Your task to perform on an android device: open app "Instagram" (install if not already installed) Image 0: 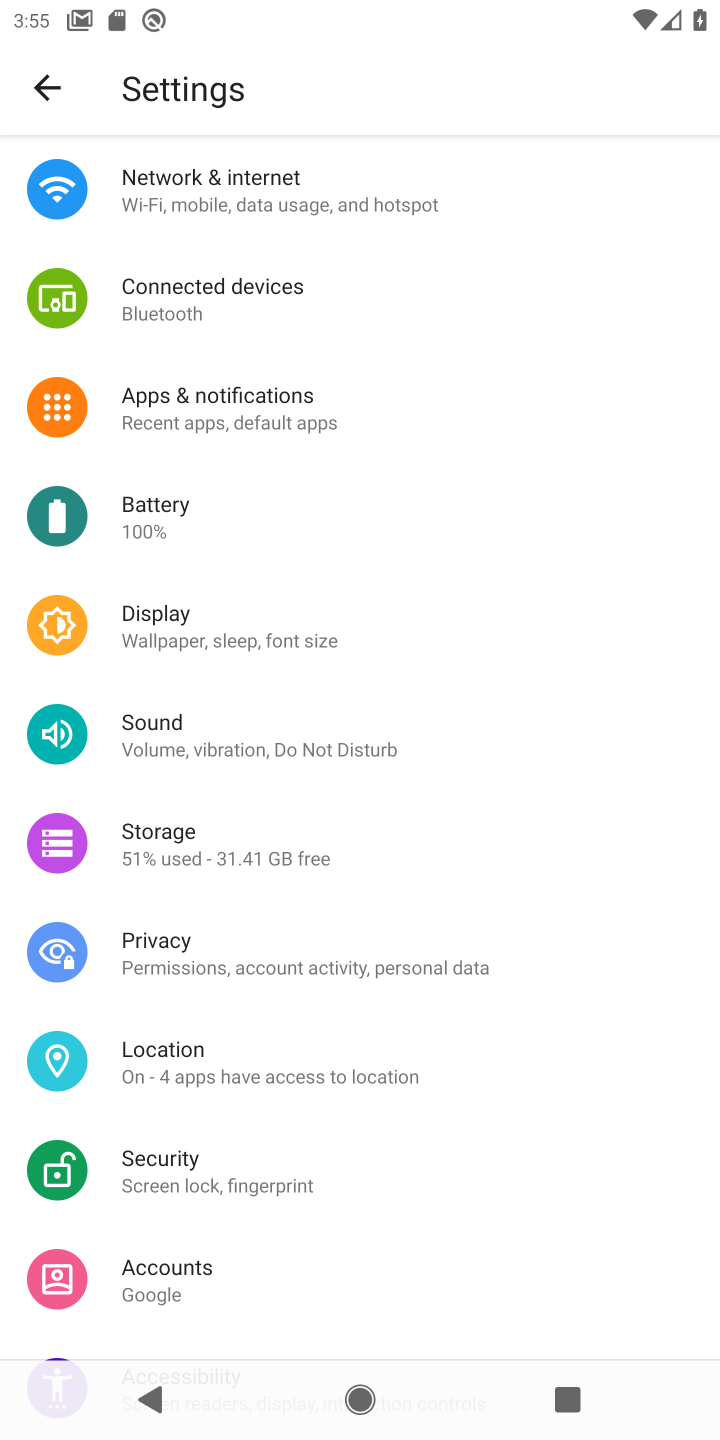
Step 0: press home button
Your task to perform on an android device: open app "Instagram" (install if not already installed) Image 1: 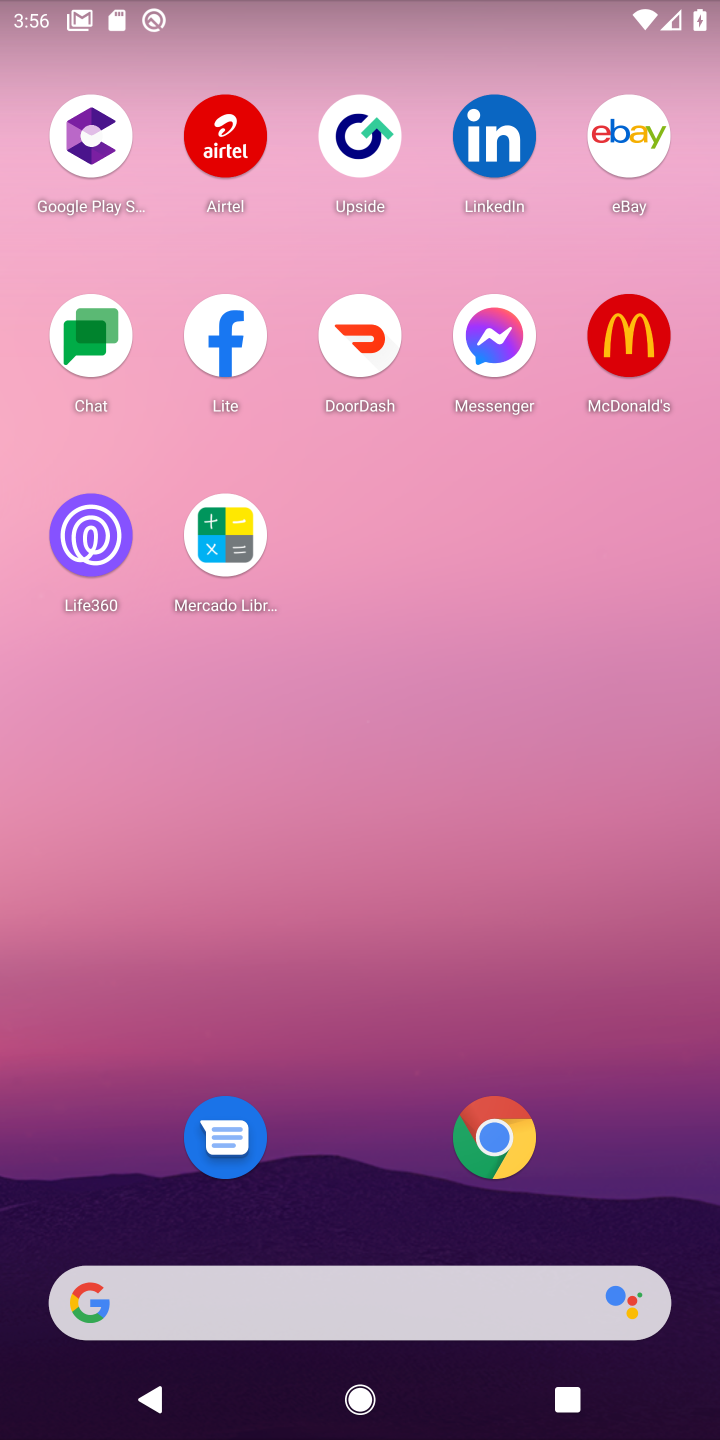
Step 1: drag from (345, 1043) to (221, 273)
Your task to perform on an android device: open app "Instagram" (install if not already installed) Image 2: 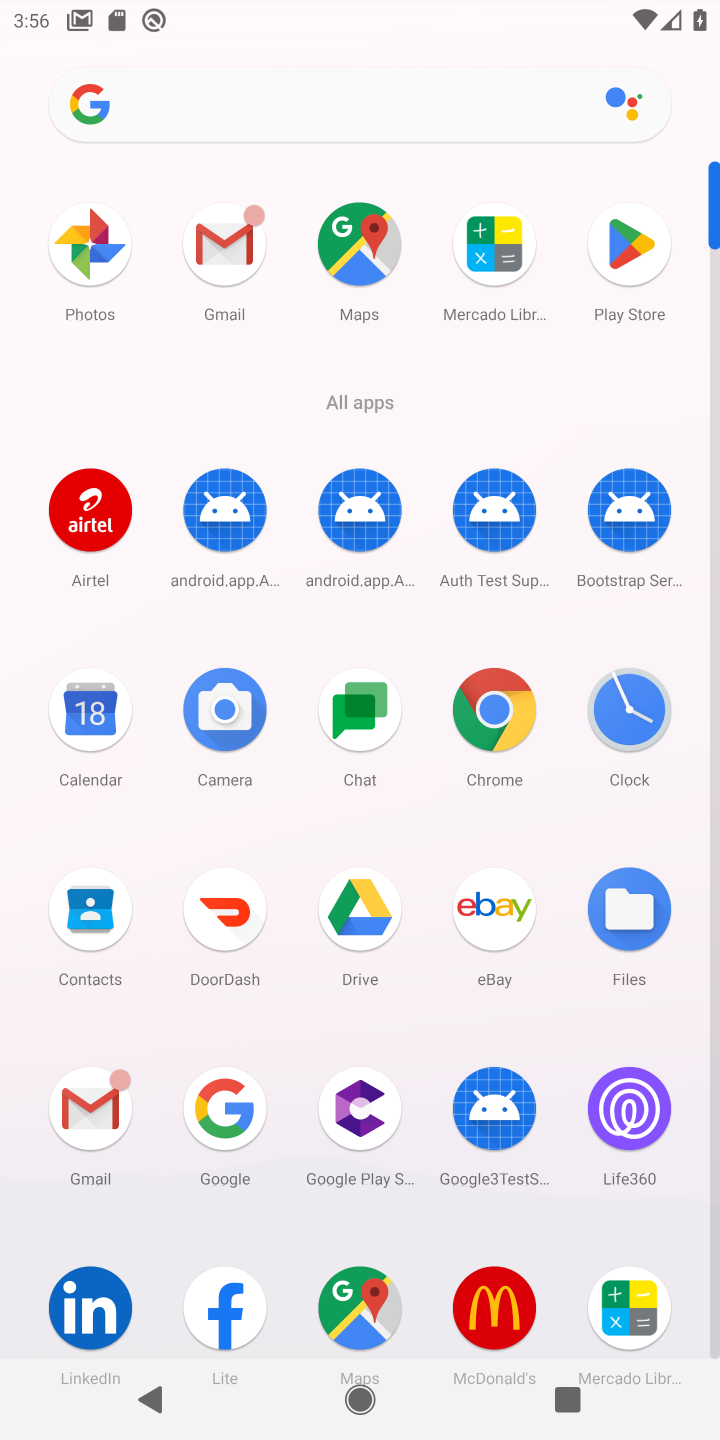
Step 2: click (623, 250)
Your task to perform on an android device: open app "Instagram" (install if not already installed) Image 3: 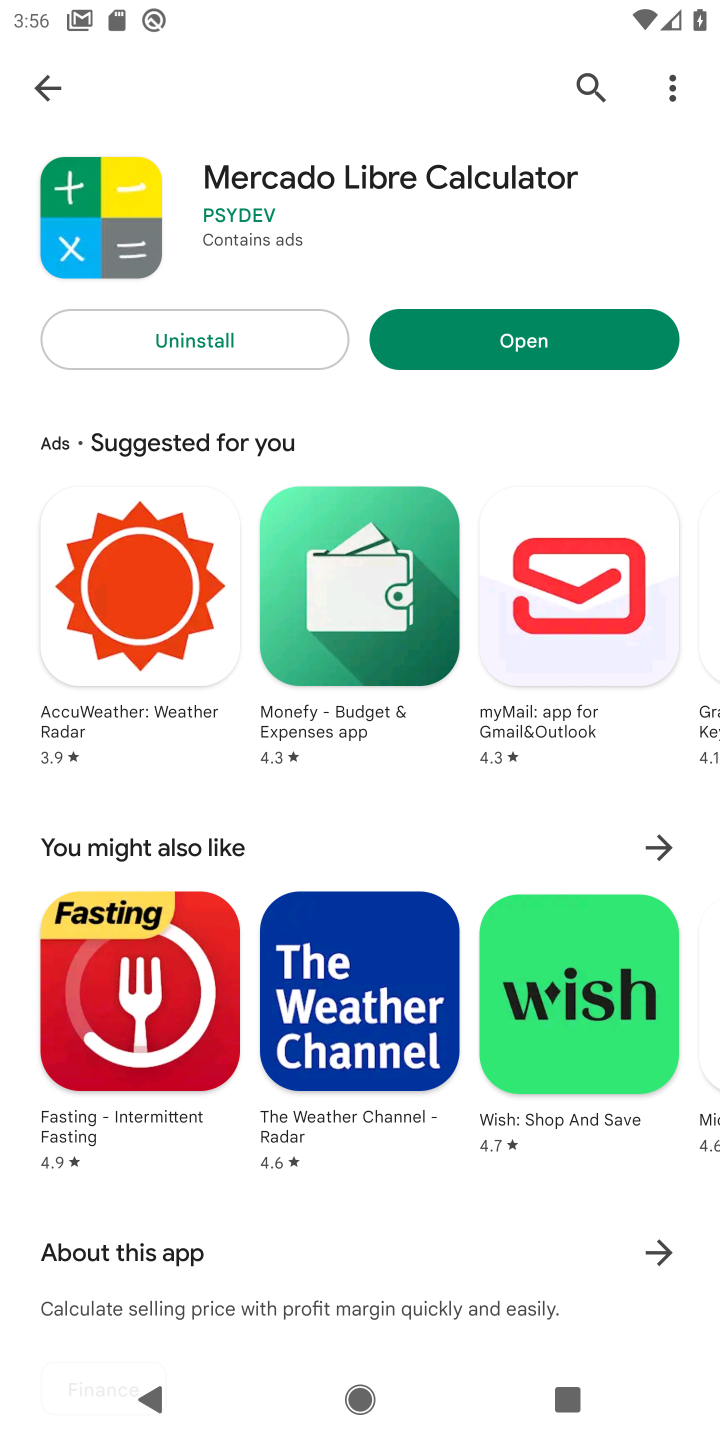
Step 3: click (34, 88)
Your task to perform on an android device: open app "Instagram" (install if not already installed) Image 4: 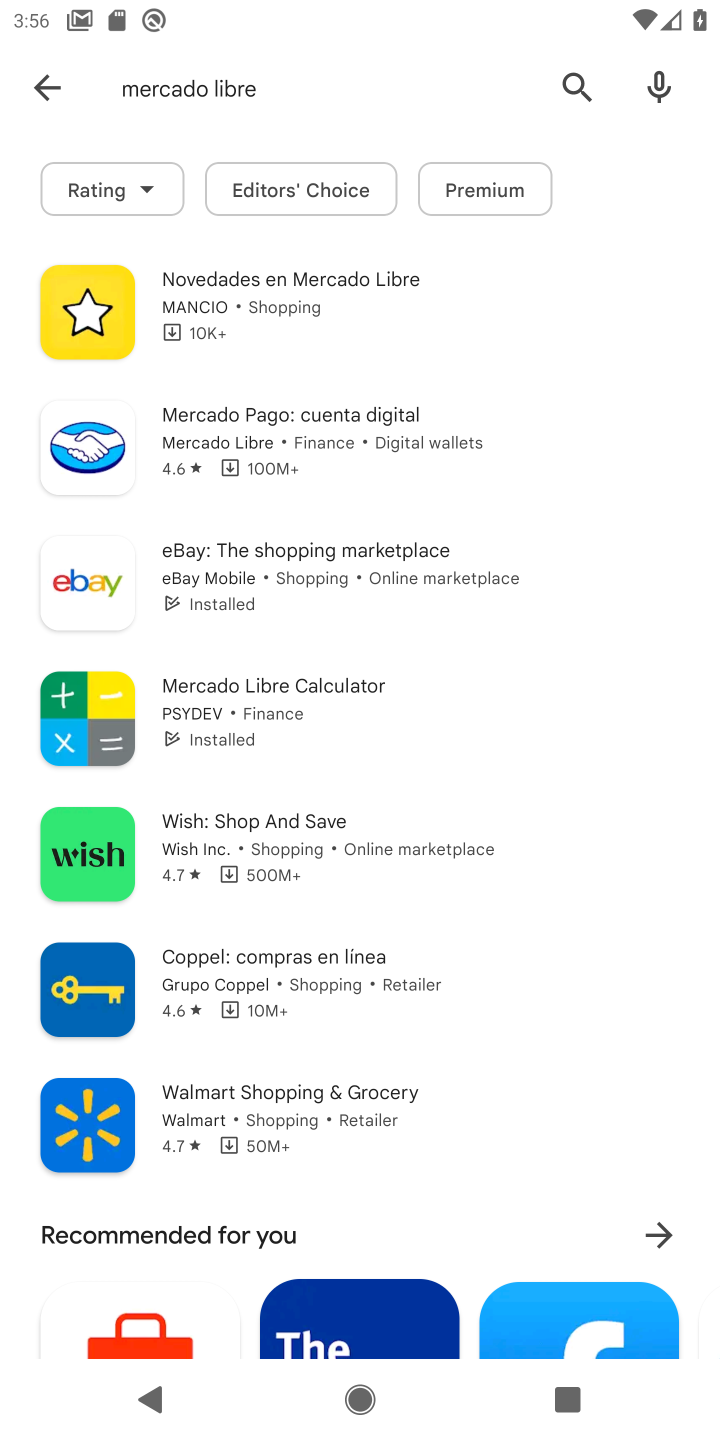
Step 4: click (51, 88)
Your task to perform on an android device: open app "Instagram" (install if not already installed) Image 5: 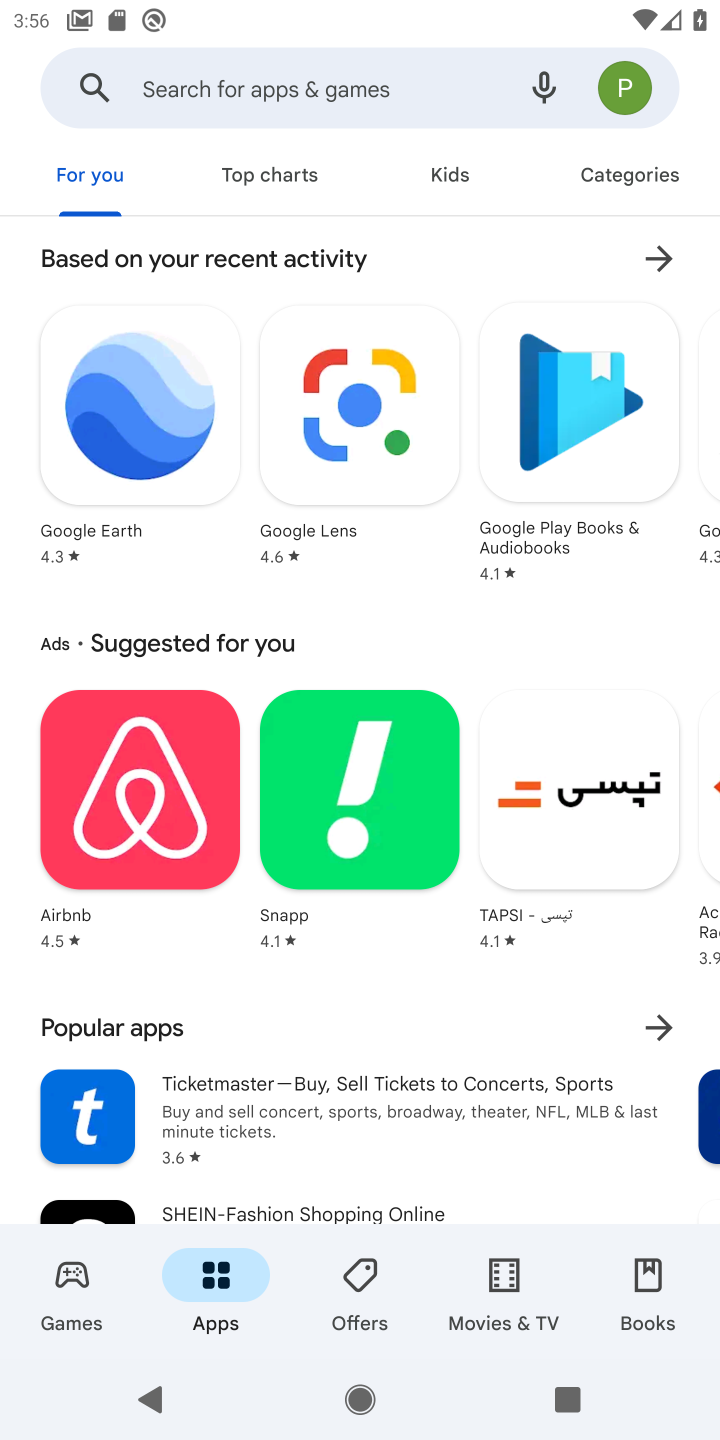
Step 5: click (246, 88)
Your task to perform on an android device: open app "Instagram" (install if not already installed) Image 6: 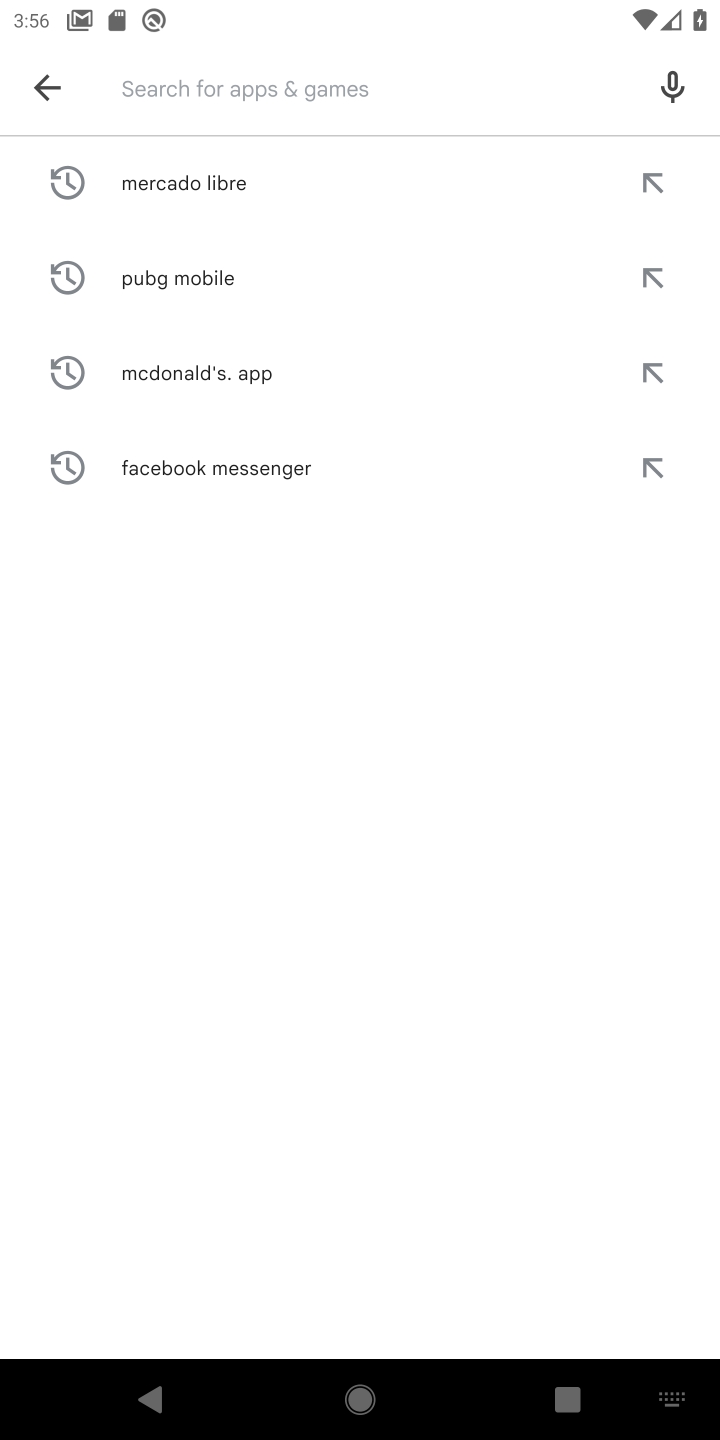
Step 6: type "Instagram"
Your task to perform on an android device: open app "Instagram" (install if not already installed) Image 7: 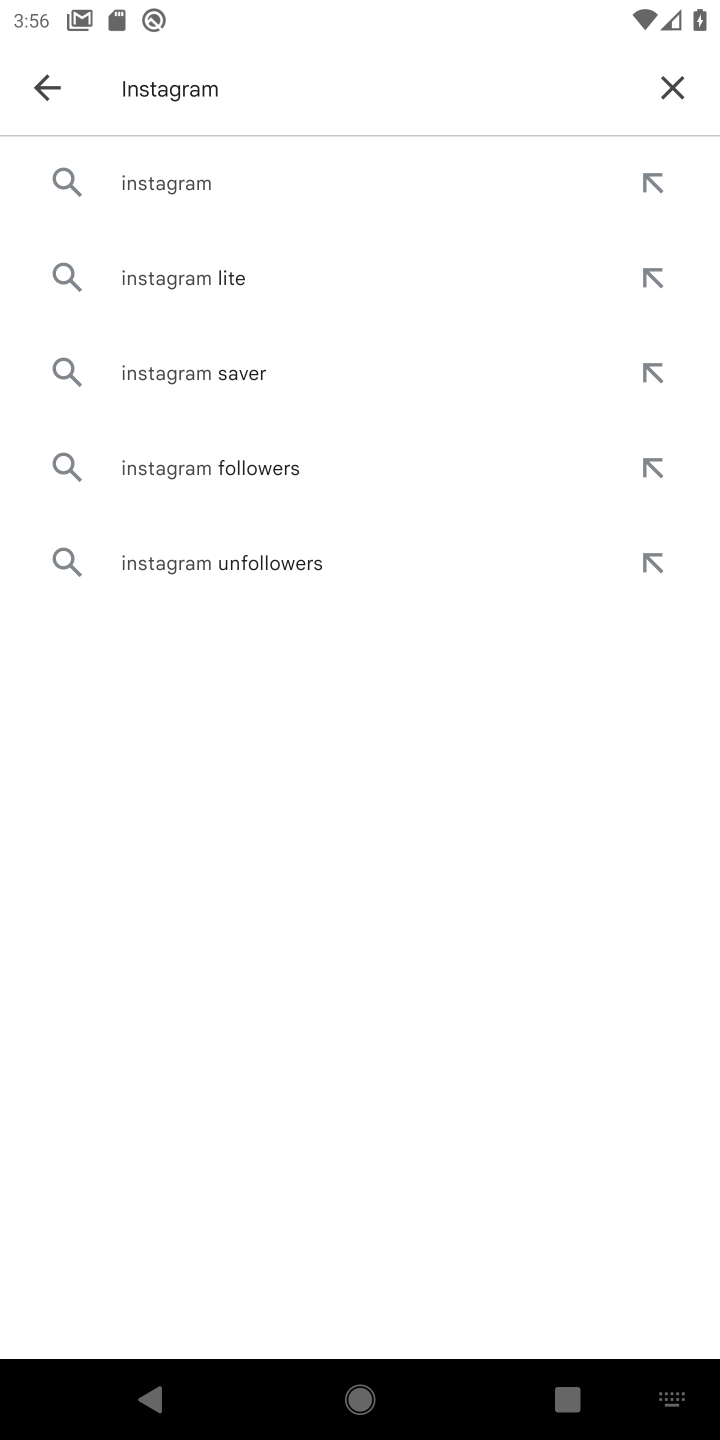
Step 7: click (202, 183)
Your task to perform on an android device: open app "Instagram" (install if not already installed) Image 8: 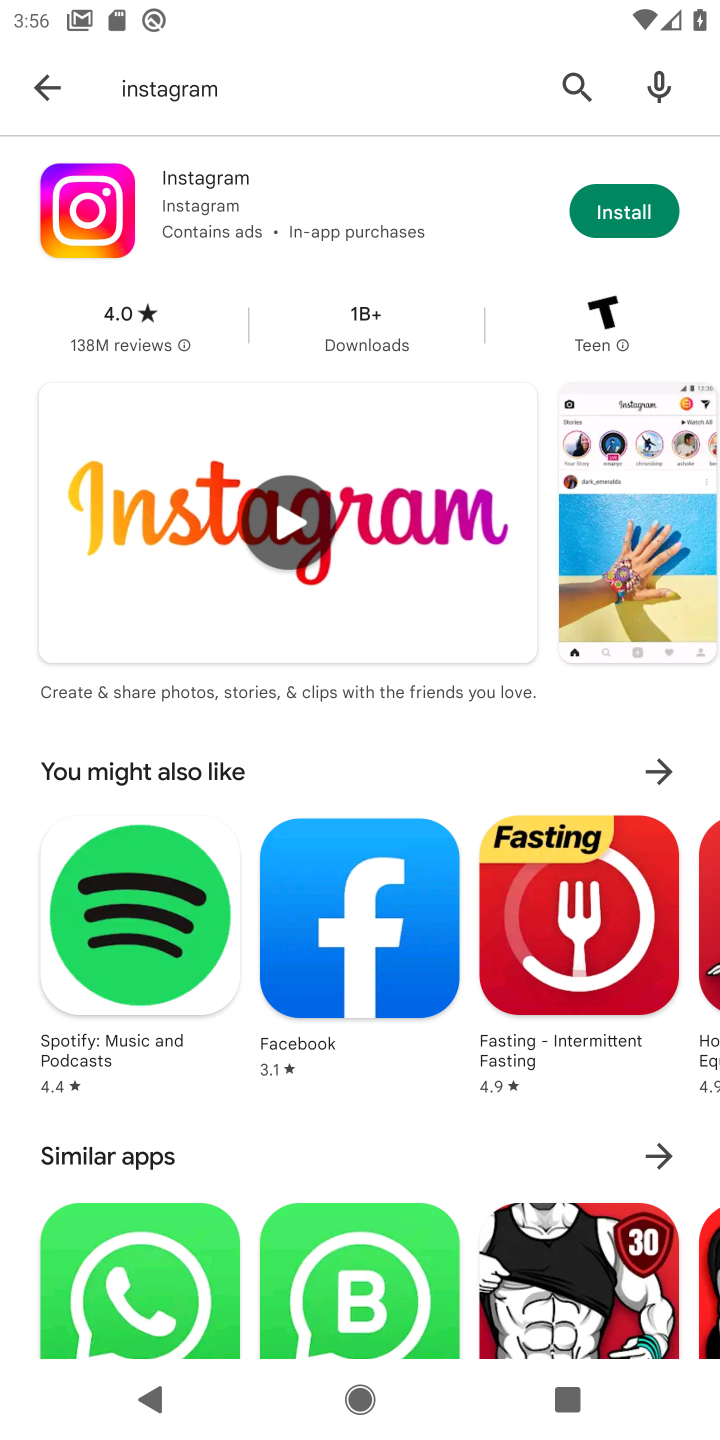
Step 8: click (625, 211)
Your task to perform on an android device: open app "Instagram" (install if not already installed) Image 9: 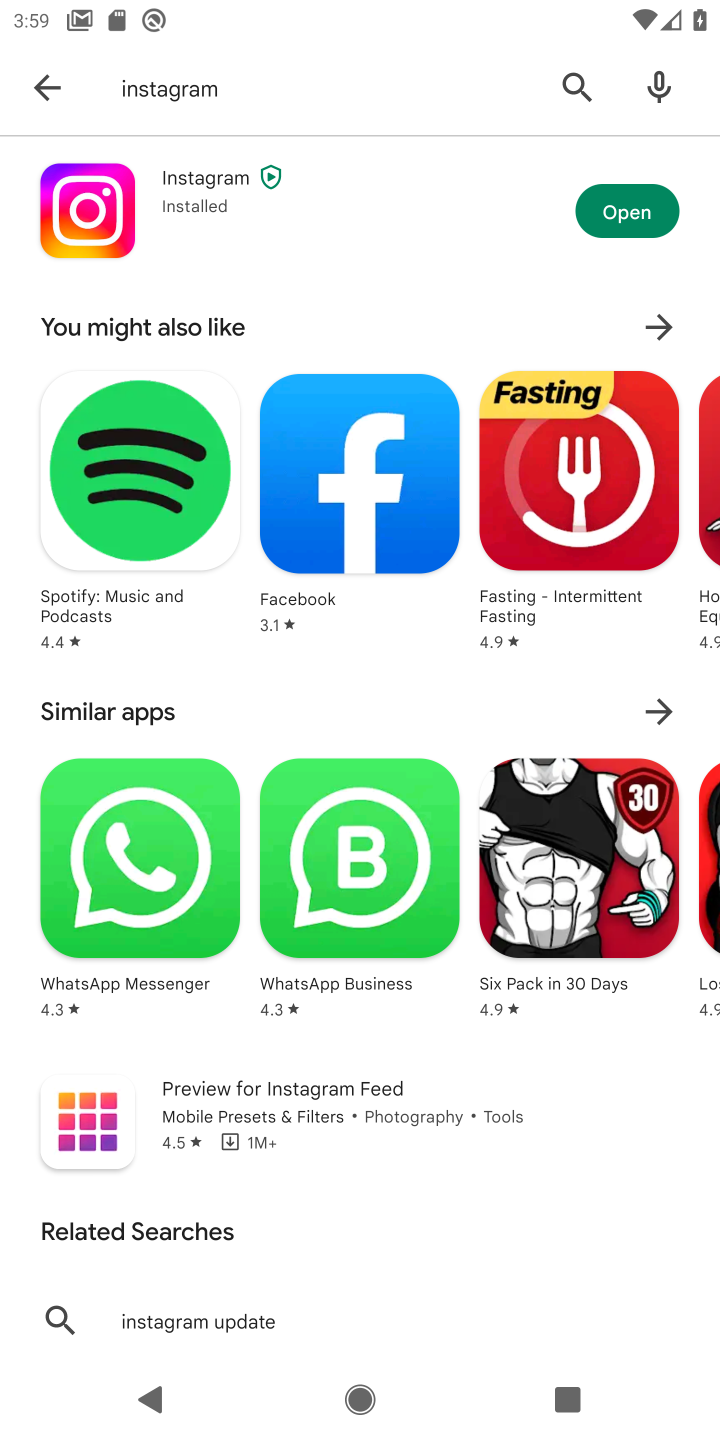
Step 9: click (612, 229)
Your task to perform on an android device: open app "Instagram" (install if not already installed) Image 10: 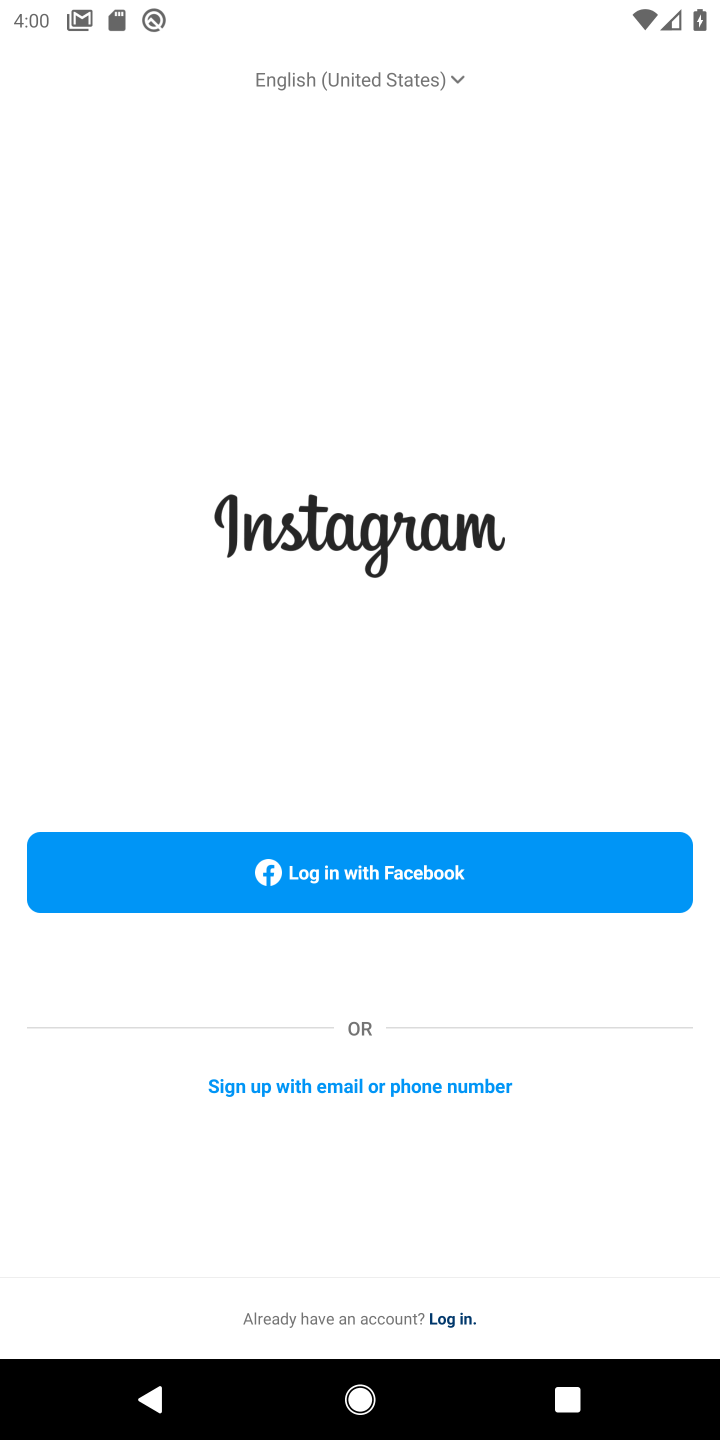
Step 10: task complete